Your task to perform on an android device: turn on sleep mode Image 0: 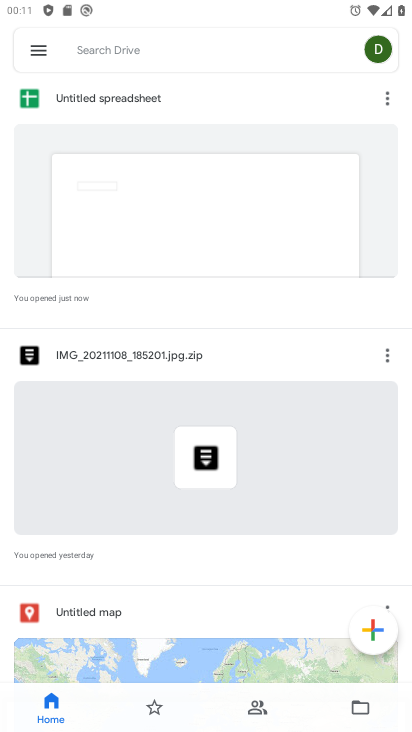
Step 0: press home button
Your task to perform on an android device: turn on sleep mode Image 1: 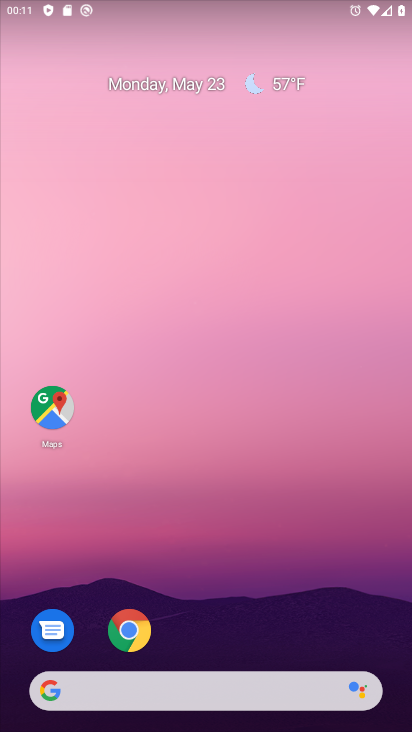
Step 1: drag from (283, 429) to (147, 5)
Your task to perform on an android device: turn on sleep mode Image 2: 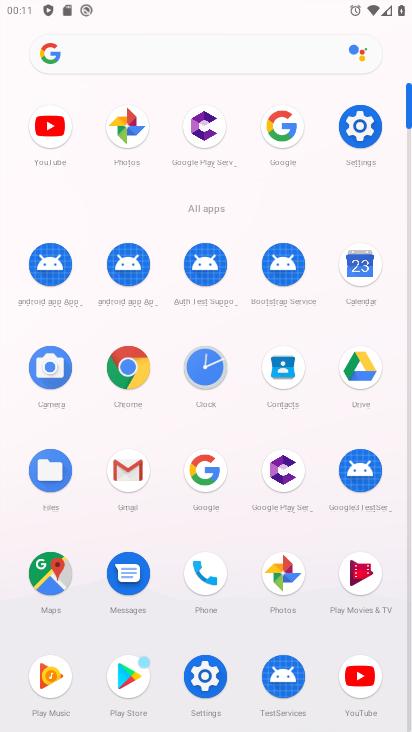
Step 2: click (359, 128)
Your task to perform on an android device: turn on sleep mode Image 3: 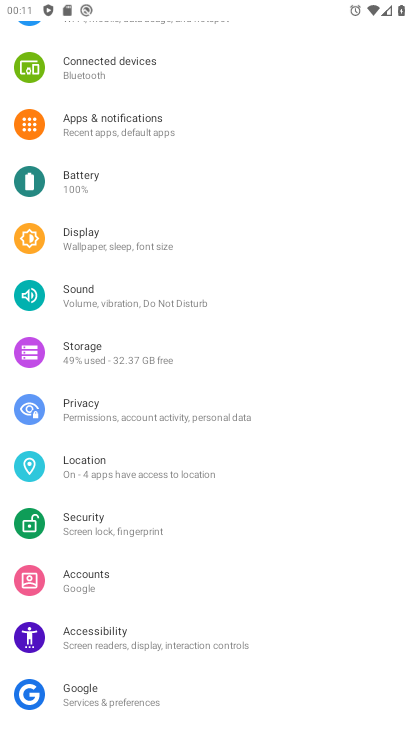
Step 3: click (150, 237)
Your task to perform on an android device: turn on sleep mode Image 4: 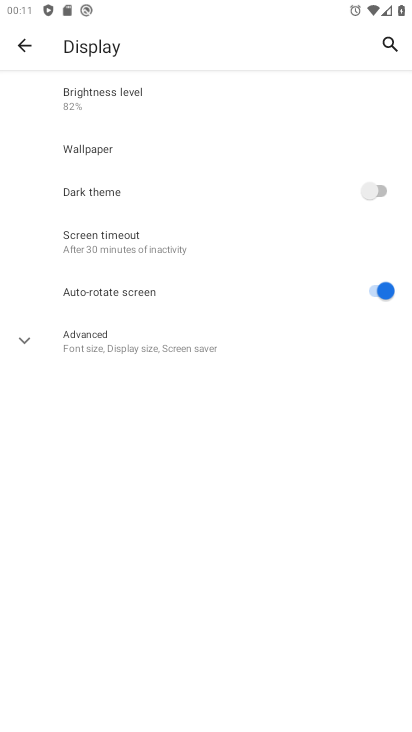
Step 4: task complete